Your task to perform on an android device: change the clock style Image 0: 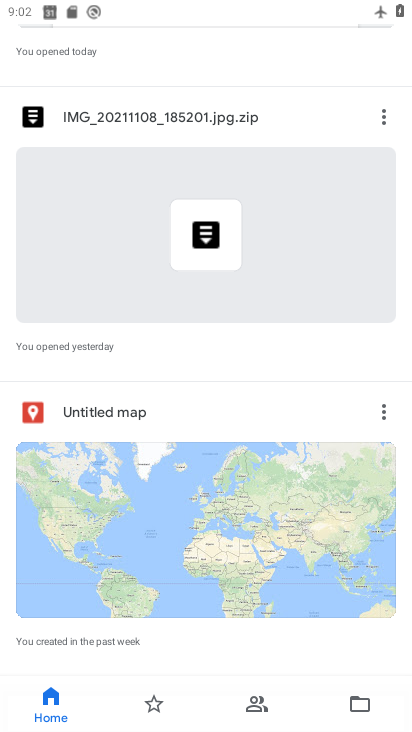
Step 0: drag from (171, 595) to (181, 259)
Your task to perform on an android device: change the clock style Image 1: 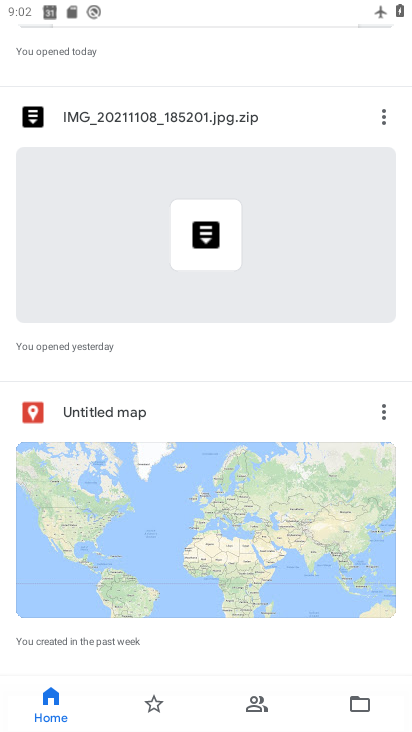
Step 1: drag from (194, 439) to (218, 270)
Your task to perform on an android device: change the clock style Image 2: 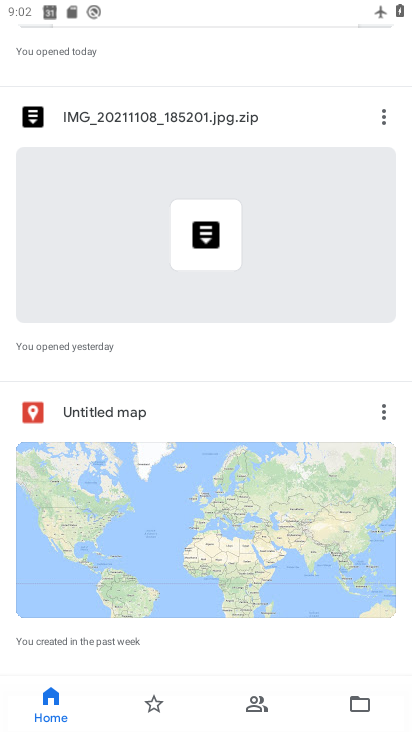
Step 2: drag from (196, 515) to (212, 282)
Your task to perform on an android device: change the clock style Image 3: 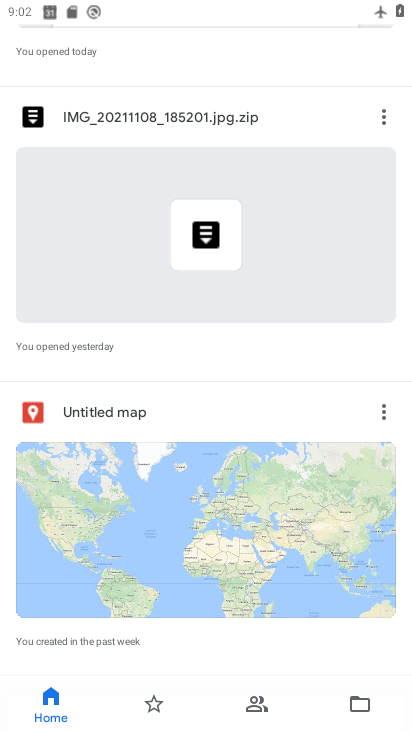
Step 3: press home button
Your task to perform on an android device: change the clock style Image 4: 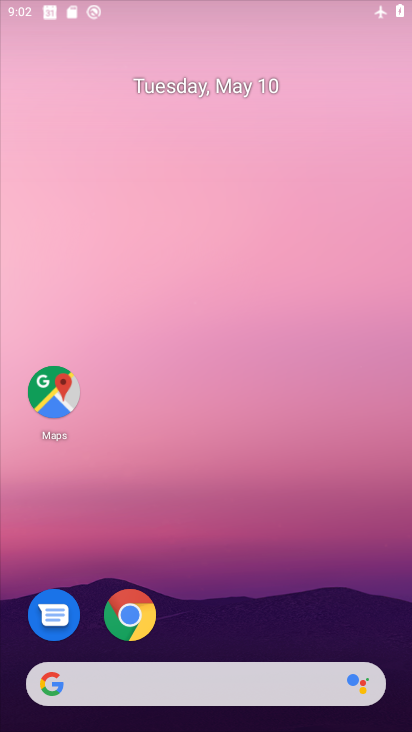
Step 4: drag from (222, 553) to (256, 120)
Your task to perform on an android device: change the clock style Image 5: 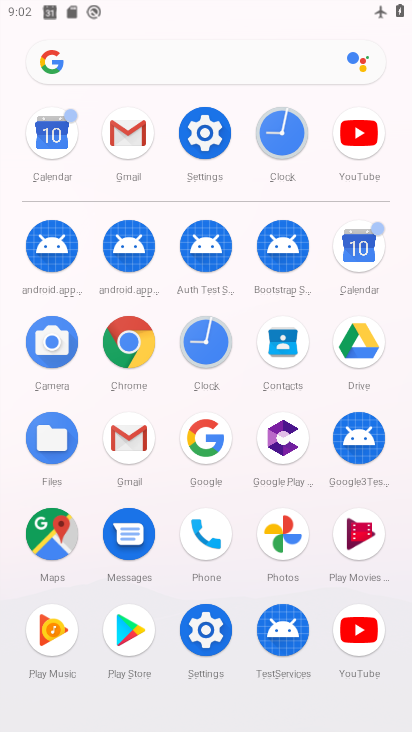
Step 5: click (278, 124)
Your task to perform on an android device: change the clock style Image 6: 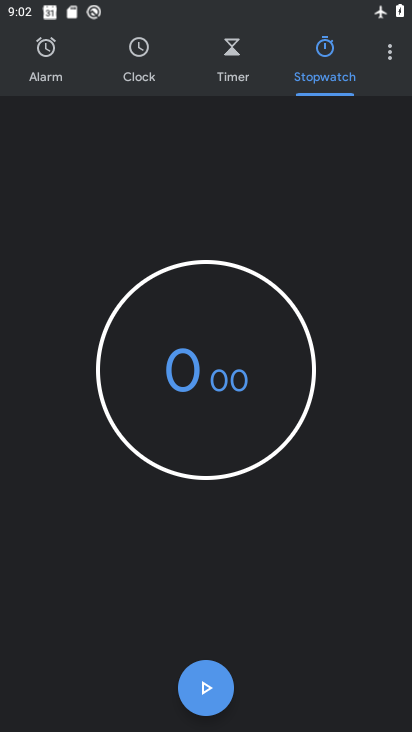
Step 6: click (396, 53)
Your task to perform on an android device: change the clock style Image 7: 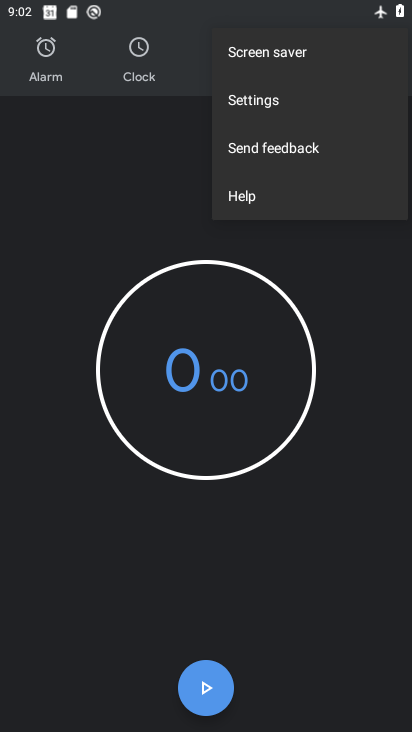
Step 7: click (263, 104)
Your task to perform on an android device: change the clock style Image 8: 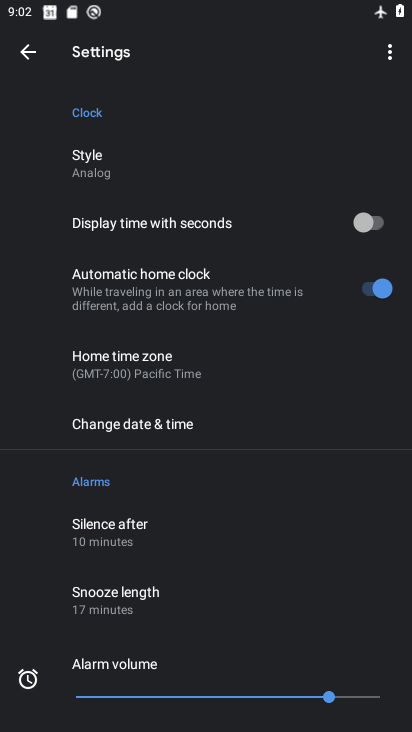
Step 8: click (111, 163)
Your task to perform on an android device: change the clock style Image 9: 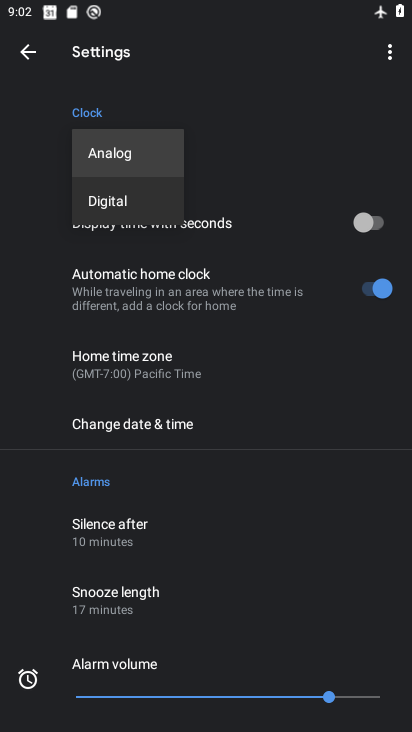
Step 9: click (147, 205)
Your task to perform on an android device: change the clock style Image 10: 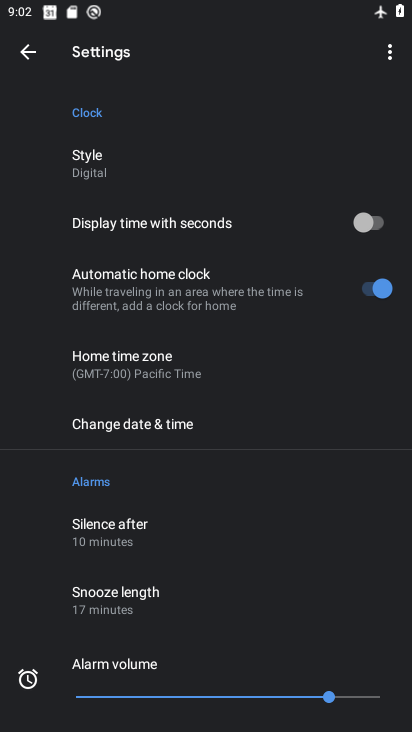
Step 10: task complete